Your task to perform on an android device: change keyboard looks Image 0: 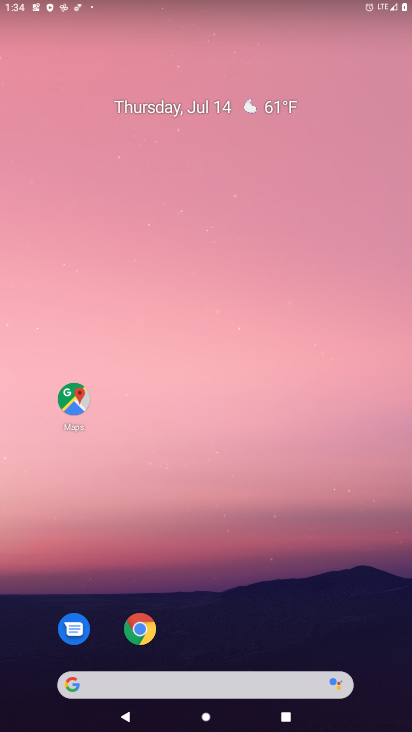
Step 0: drag from (245, 529) to (191, 225)
Your task to perform on an android device: change keyboard looks Image 1: 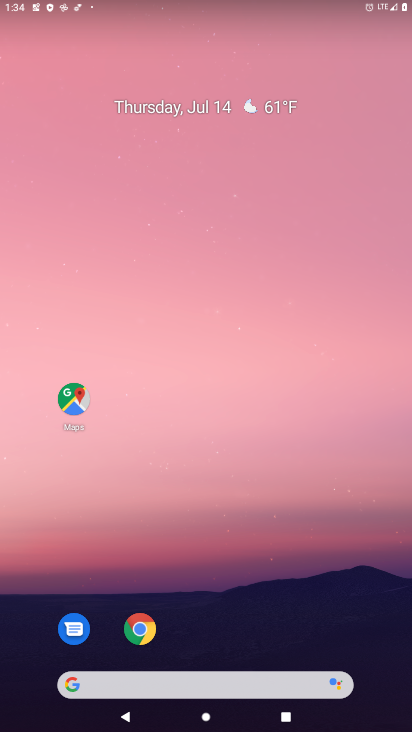
Step 1: drag from (233, 628) to (245, 71)
Your task to perform on an android device: change keyboard looks Image 2: 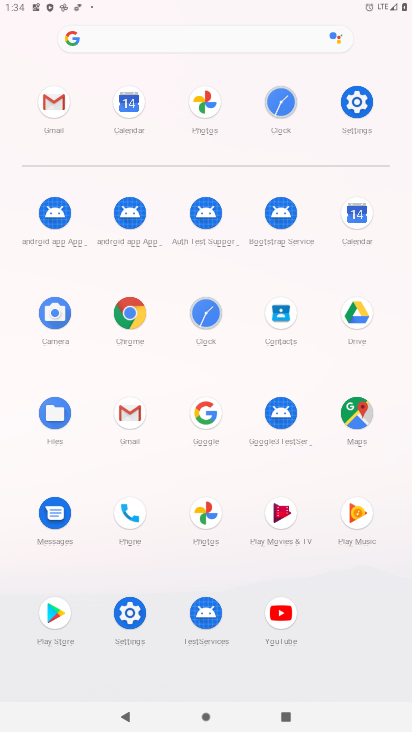
Step 2: click (361, 104)
Your task to perform on an android device: change keyboard looks Image 3: 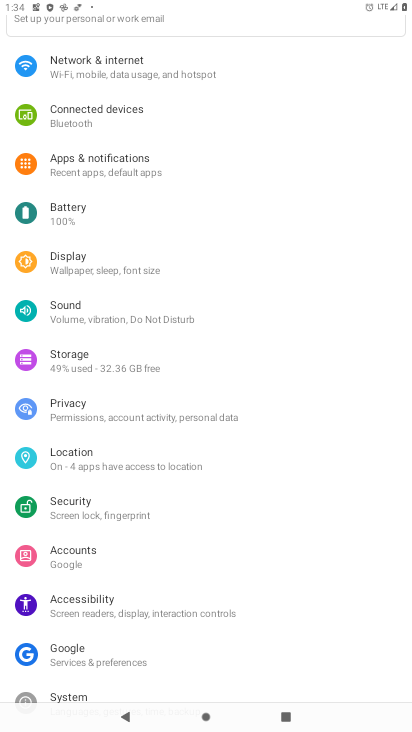
Step 3: drag from (192, 640) to (137, 287)
Your task to perform on an android device: change keyboard looks Image 4: 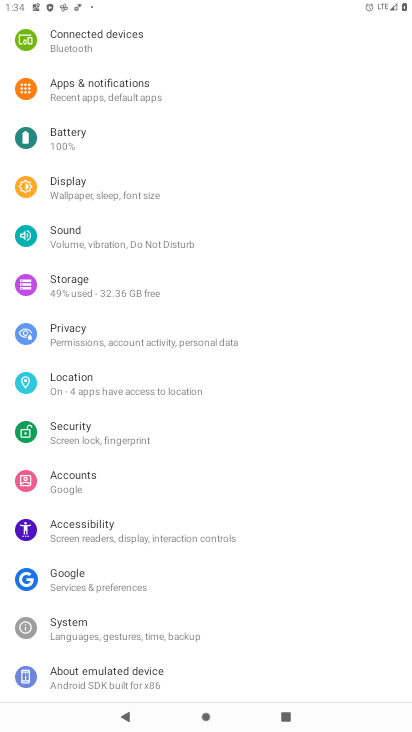
Step 4: click (66, 626)
Your task to perform on an android device: change keyboard looks Image 5: 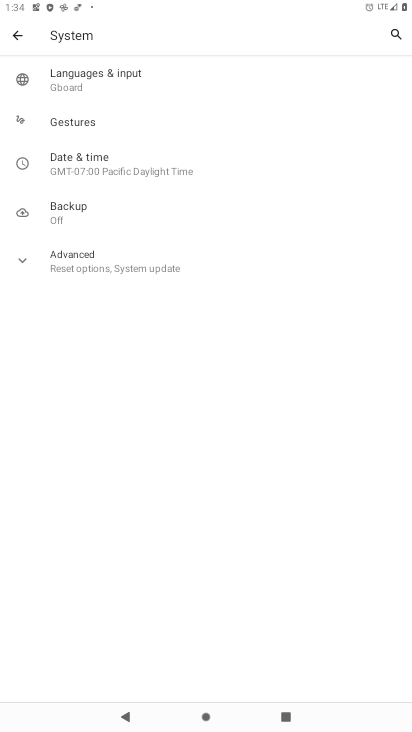
Step 5: click (66, 72)
Your task to perform on an android device: change keyboard looks Image 6: 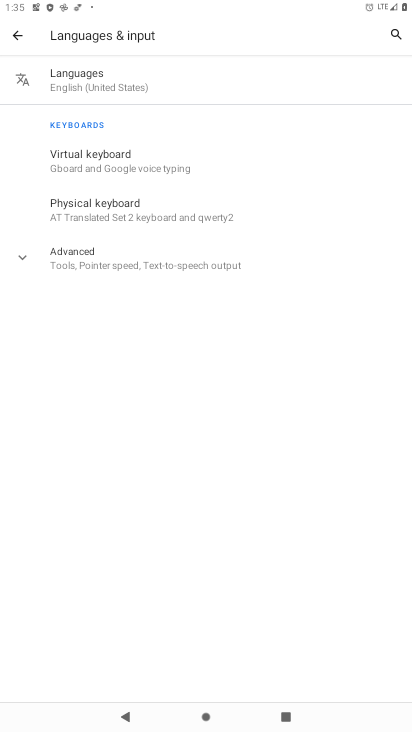
Step 6: click (74, 150)
Your task to perform on an android device: change keyboard looks Image 7: 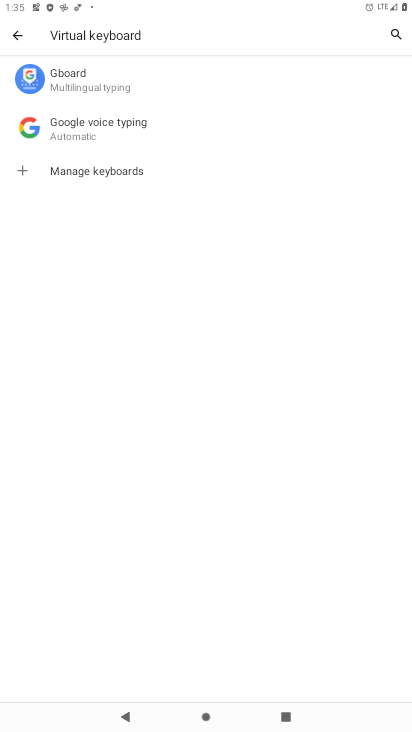
Step 7: click (66, 79)
Your task to perform on an android device: change keyboard looks Image 8: 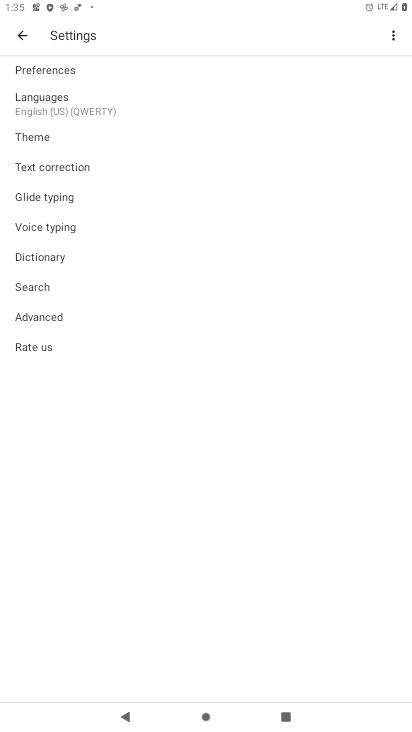
Step 8: click (42, 133)
Your task to perform on an android device: change keyboard looks Image 9: 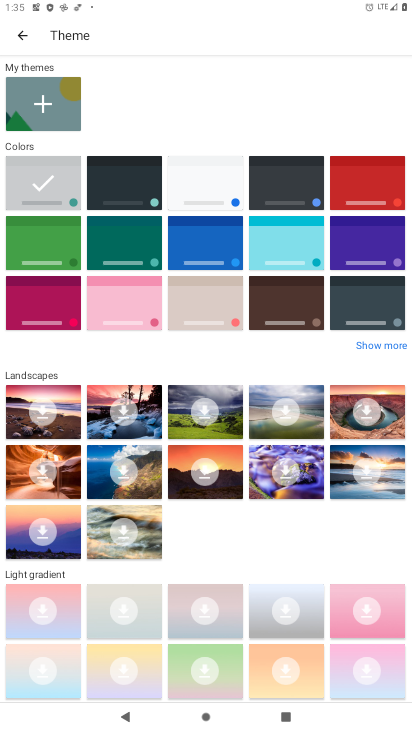
Step 9: click (62, 249)
Your task to perform on an android device: change keyboard looks Image 10: 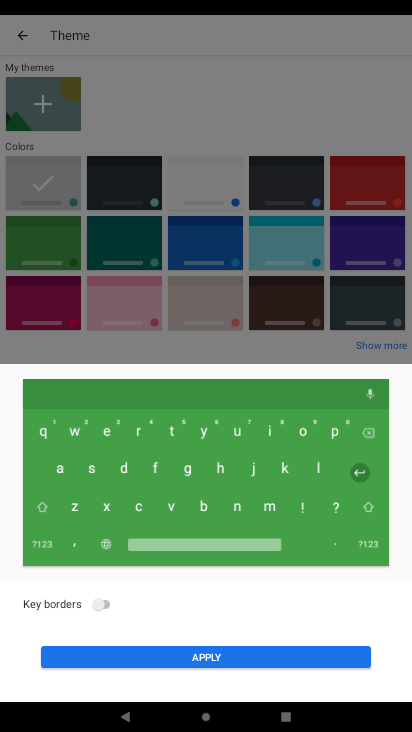
Step 10: click (207, 663)
Your task to perform on an android device: change keyboard looks Image 11: 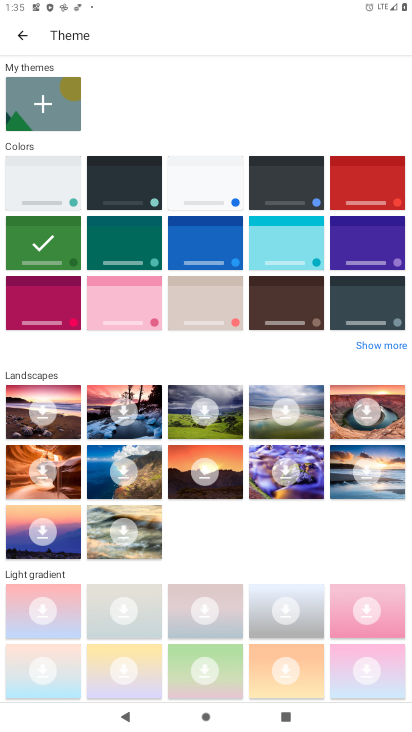
Step 11: task complete